Your task to perform on an android device: Open Google Chrome Image 0: 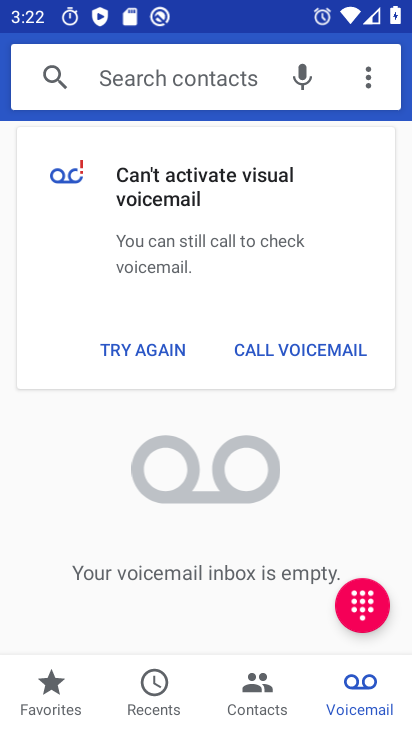
Step 0: press home button
Your task to perform on an android device: Open Google Chrome Image 1: 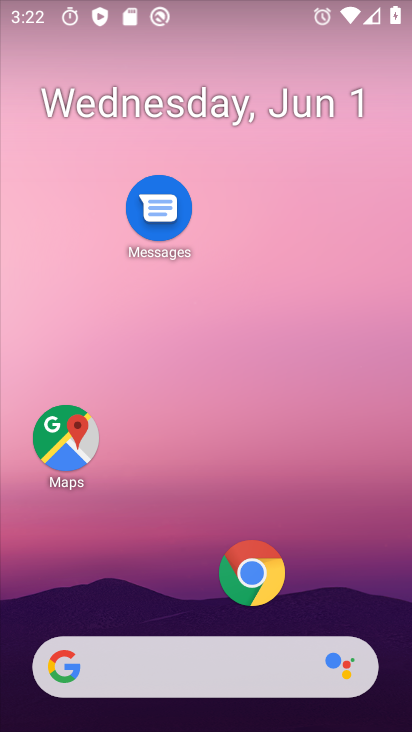
Step 1: click (245, 600)
Your task to perform on an android device: Open Google Chrome Image 2: 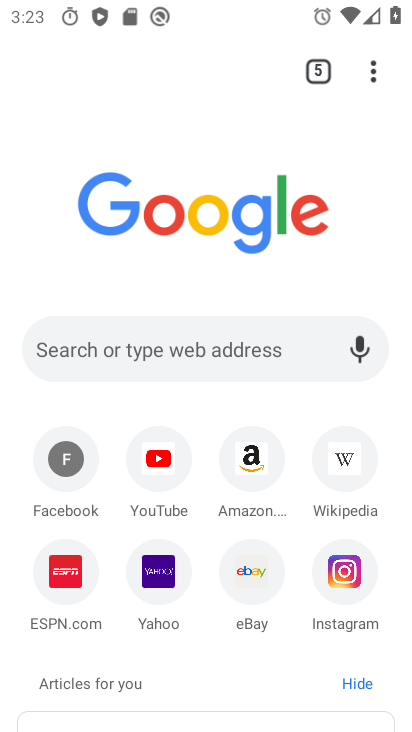
Step 2: task complete